Your task to perform on an android device: check out phone information Image 0: 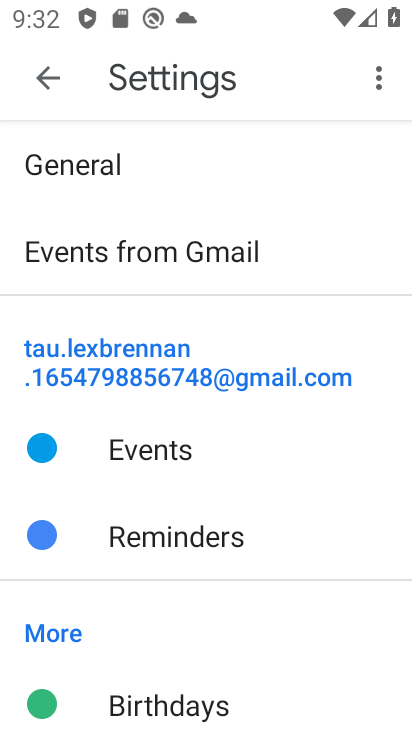
Step 0: press home button
Your task to perform on an android device: check out phone information Image 1: 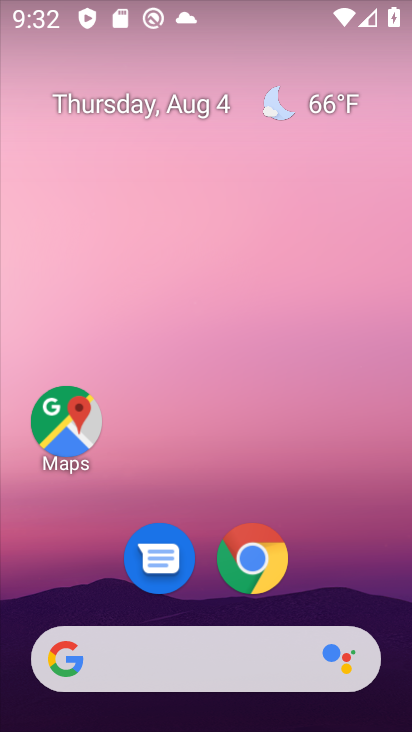
Step 1: drag from (357, 563) to (301, 83)
Your task to perform on an android device: check out phone information Image 2: 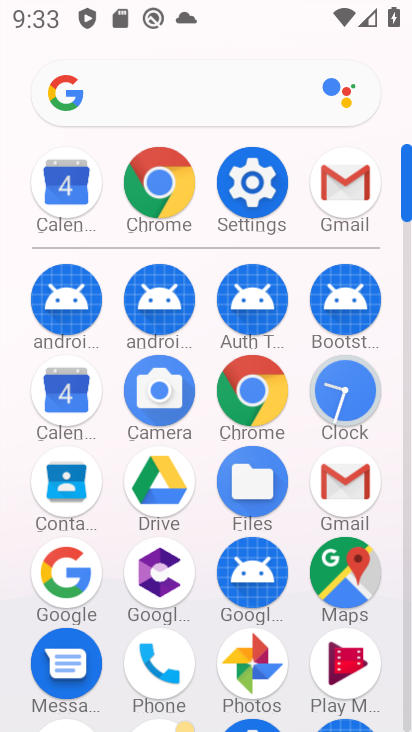
Step 2: drag from (298, 619) to (318, 367)
Your task to perform on an android device: check out phone information Image 3: 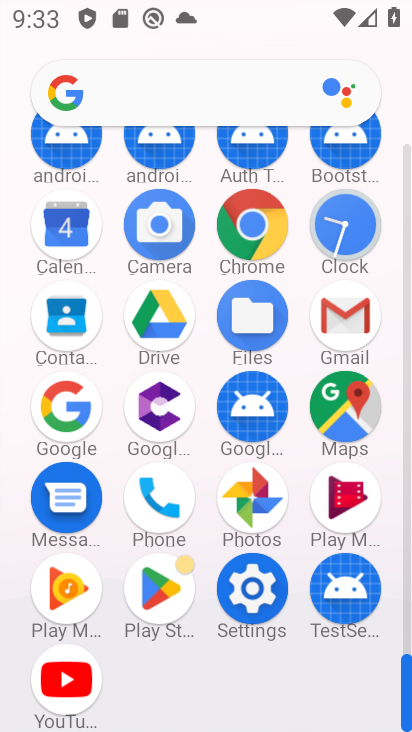
Step 3: click (162, 509)
Your task to perform on an android device: check out phone information Image 4: 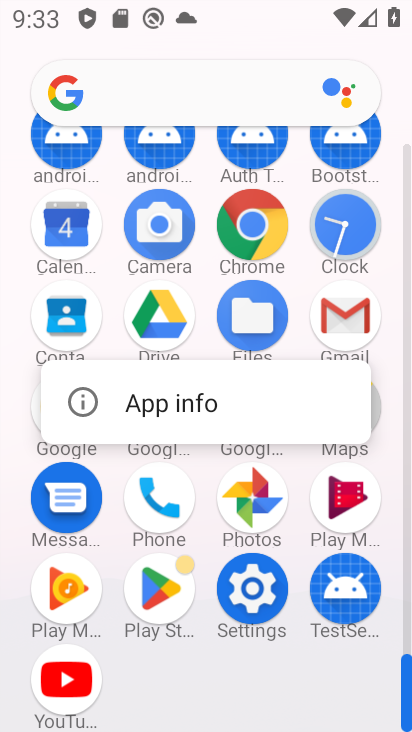
Step 4: click (211, 391)
Your task to perform on an android device: check out phone information Image 5: 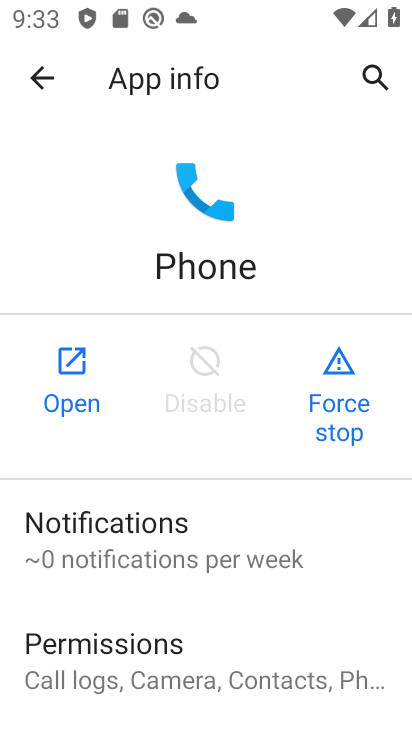
Step 5: drag from (242, 623) to (283, 340)
Your task to perform on an android device: check out phone information Image 6: 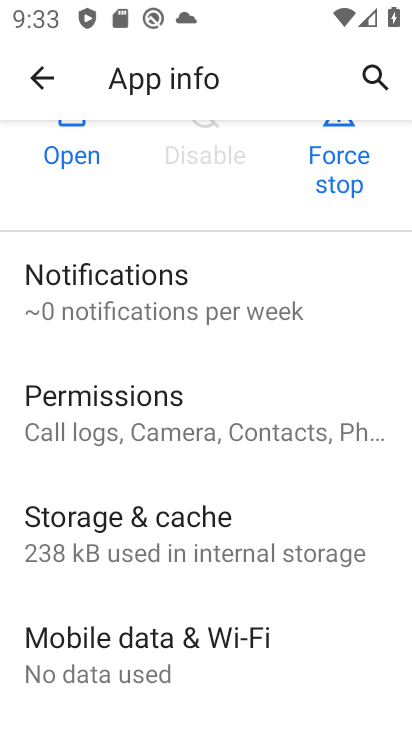
Step 6: drag from (271, 640) to (301, 381)
Your task to perform on an android device: check out phone information Image 7: 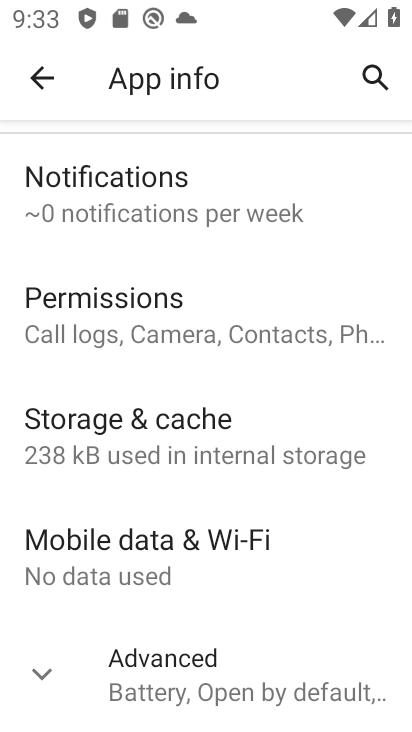
Step 7: click (180, 656)
Your task to perform on an android device: check out phone information Image 8: 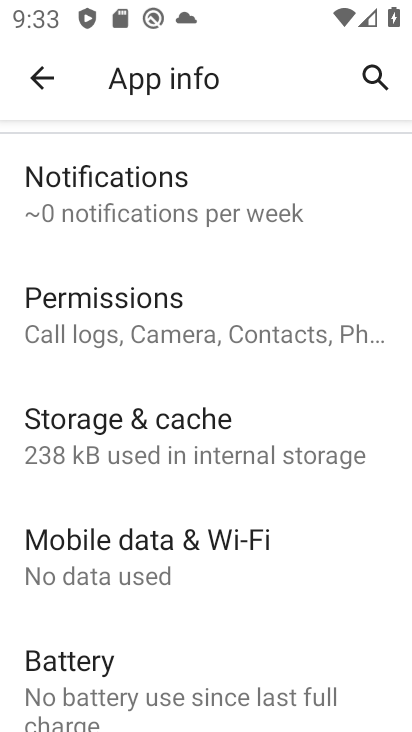
Step 8: task complete